Your task to perform on an android device: change the clock style Image 0: 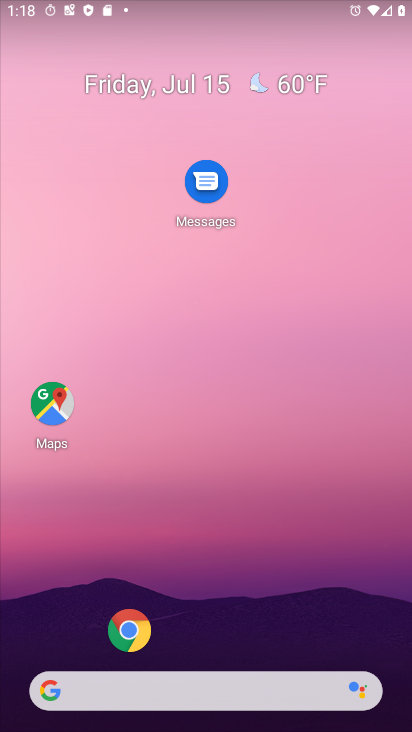
Step 0: drag from (16, 652) to (259, 65)
Your task to perform on an android device: change the clock style Image 1: 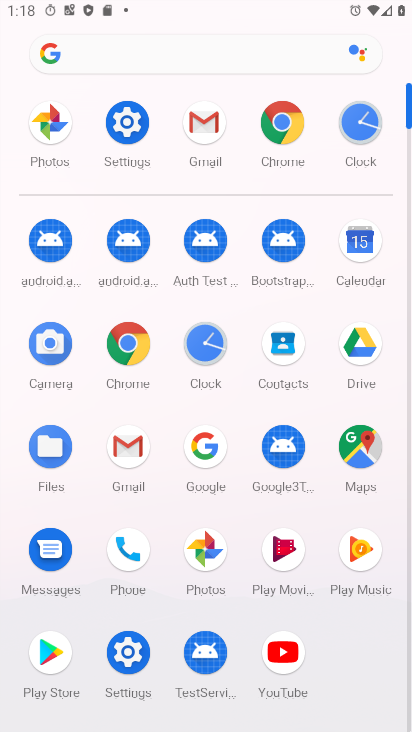
Step 1: click (202, 355)
Your task to perform on an android device: change the clock style Image 2: 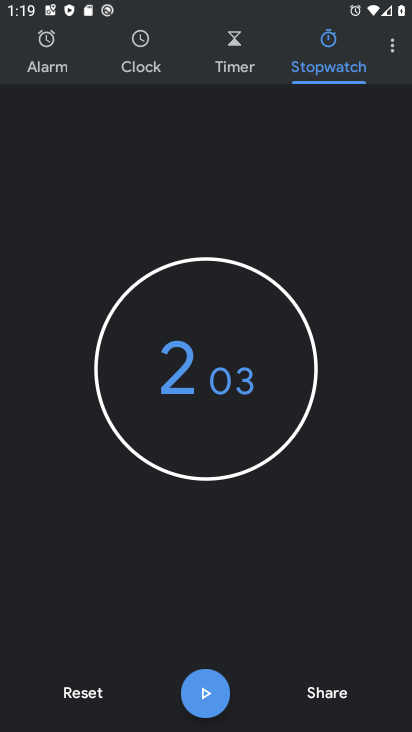
Step 2: click (124, 53)
Your task to perform on an android device: change the clock style Image 3: 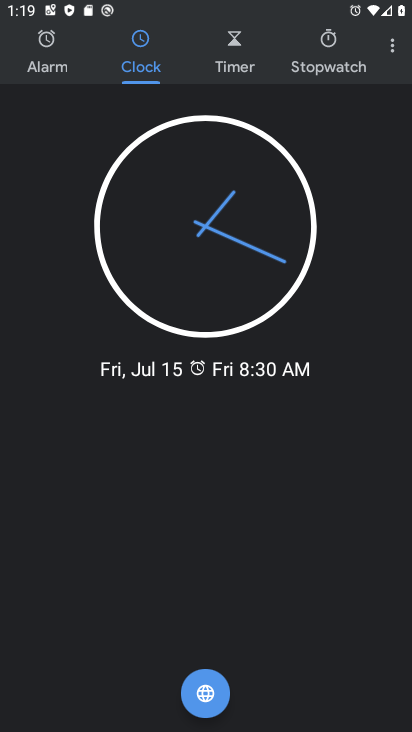
Step 3: click (249, 217)
Your task to perform on an android device: change the clock style Image 4: 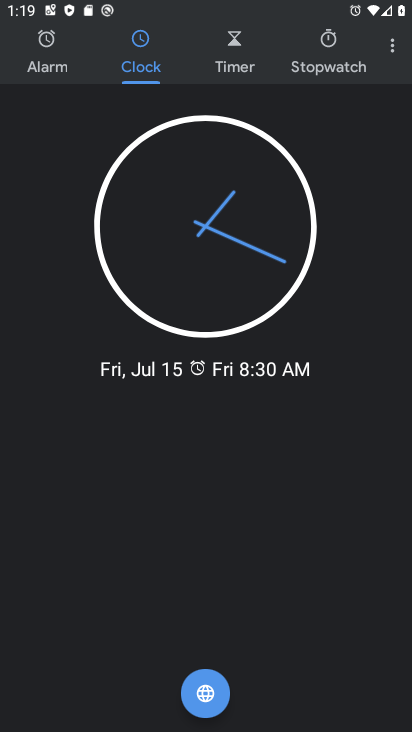
Step 4: click (395, 49)
Your task to perform on an android device: change the clock style Image 5: 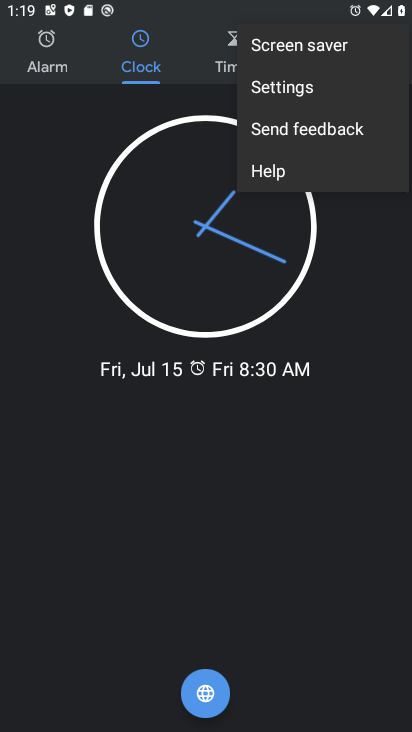
Step 5: click (285, 98)
Your task to perform on an android device: change the clock style Image 6: 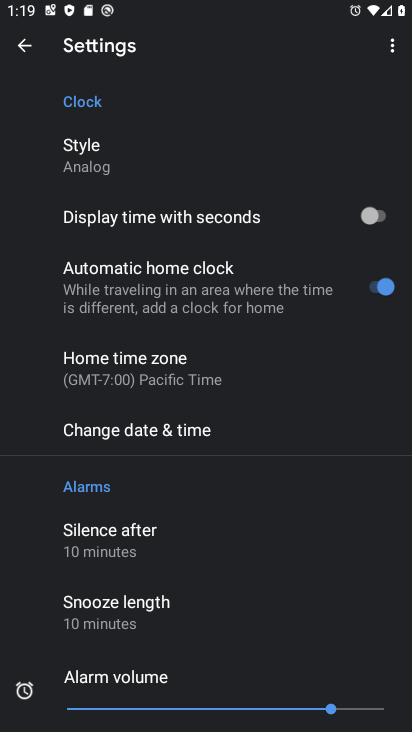
Step 6: click (139, 161)
Your task to perform on an android device: change the clock style Image 7: 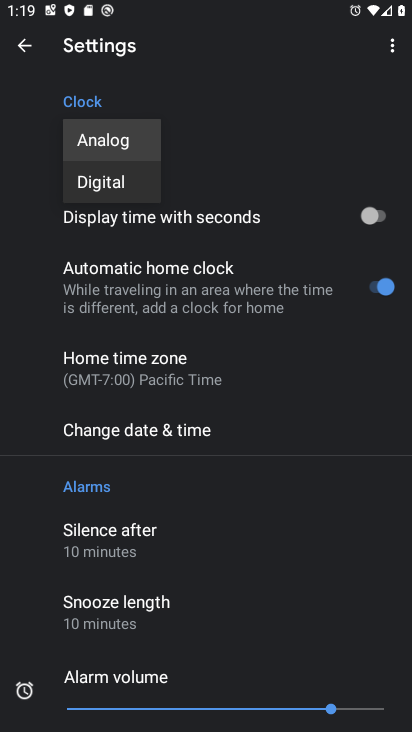
Step 7: click (132, 181)
Your task to perform on an android device: change the clock style Image 8: 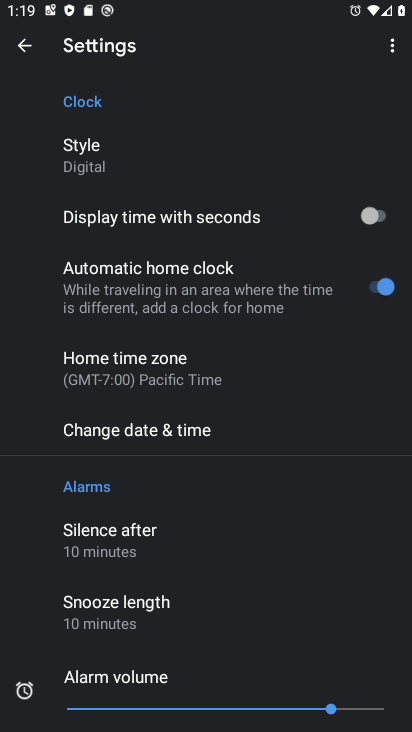
Step 8: task complete